Your task to perform on an android device: Toggle the flashlight Image 0: 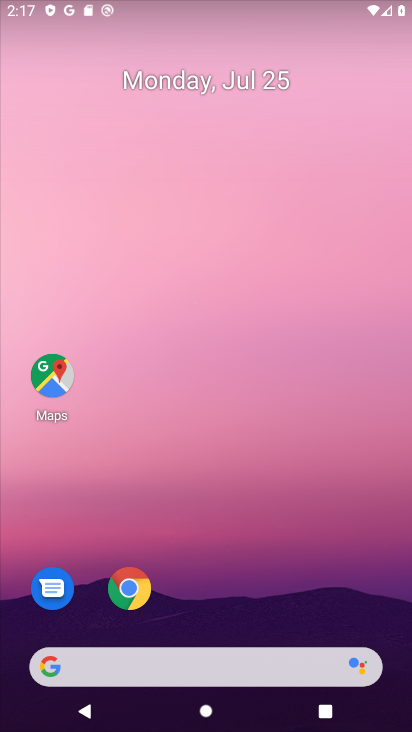
Step 0: click (283, 6)
Your task to perform on an android device: Toggle the flashlight Image 1: 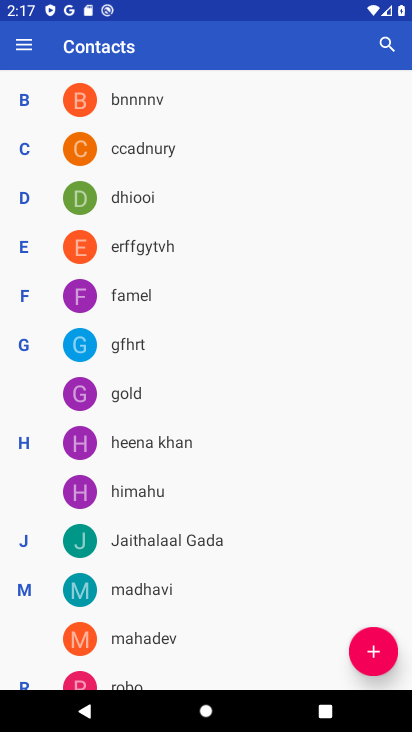
Step 1: press home button
Your task to perform on an android device: Toggle the flashlight Image 2: 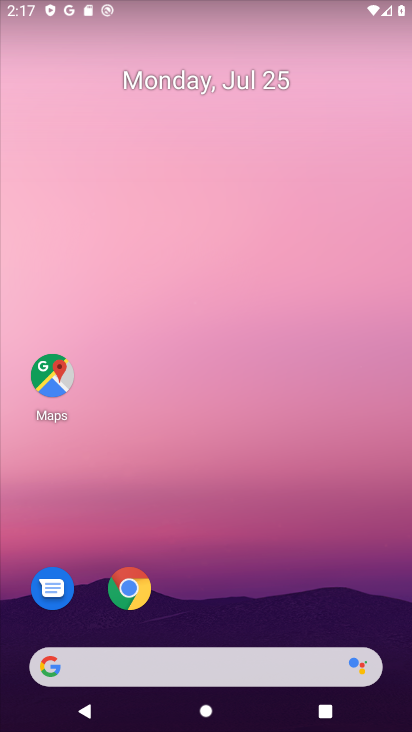
Step 2: drag from (197, 625) to (251, 21)
Your task to perform on an android device: Toggle the flashlight Image 3: 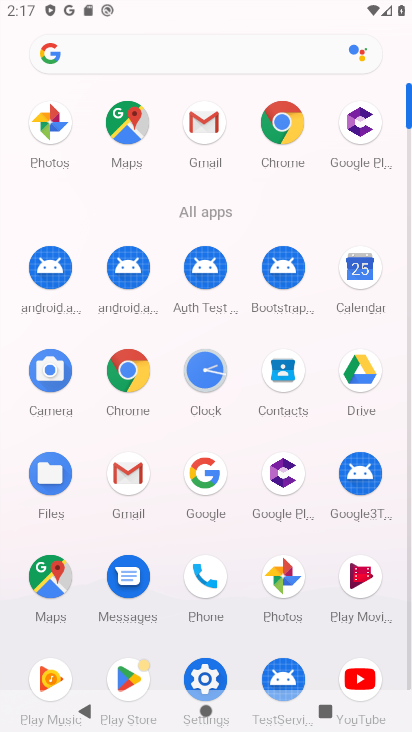
Step 3: click (204, 663)
Your task to perform on an android device: Toggle the flashlight Image 4: 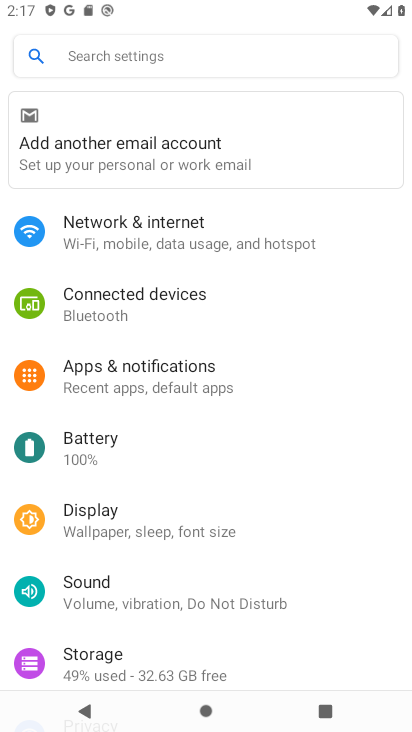
Step 4: click (157, 50)
Your task to perform on an android device: Toggle the flashlight Image 5: 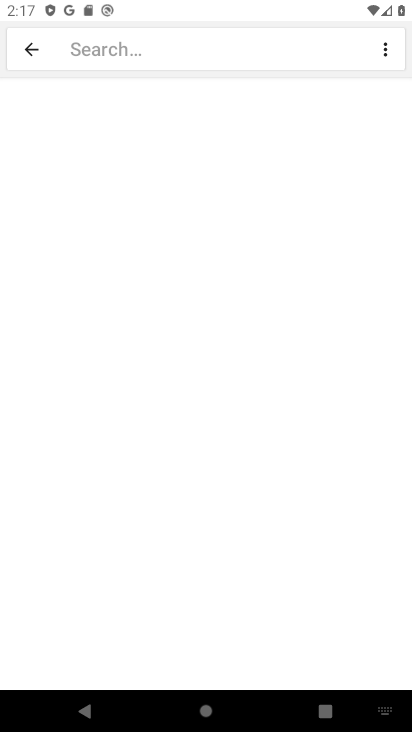
Step 5: type "flashlight"
Your task to perform on an android device: Toggle the flashlight Image 6: 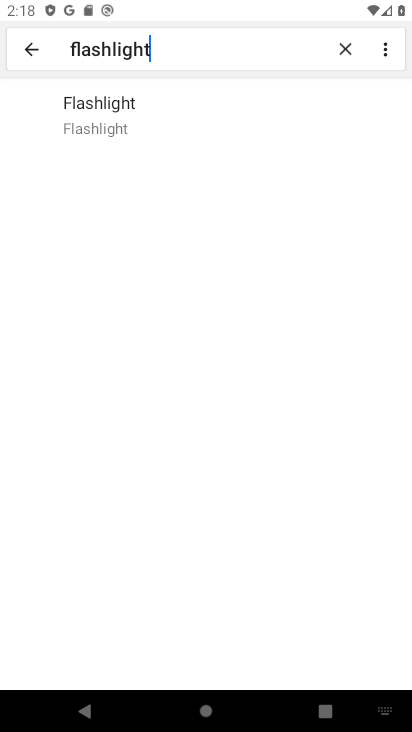
Step 6: click (138, 112)
Your task to perform on an android device: Toggle the flashlight Image 7: 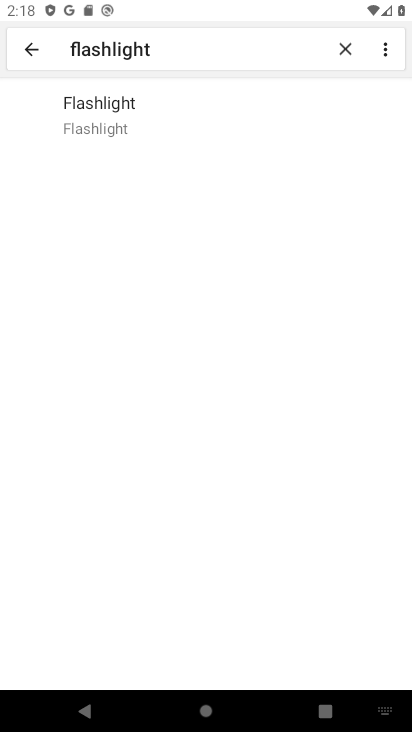
Step 7: task complete